Your task to perform on an android device: Show the shopping cart on walmart. Add "usb-a to usb-b" to the cart on walmart, then select checkout. Image 0: 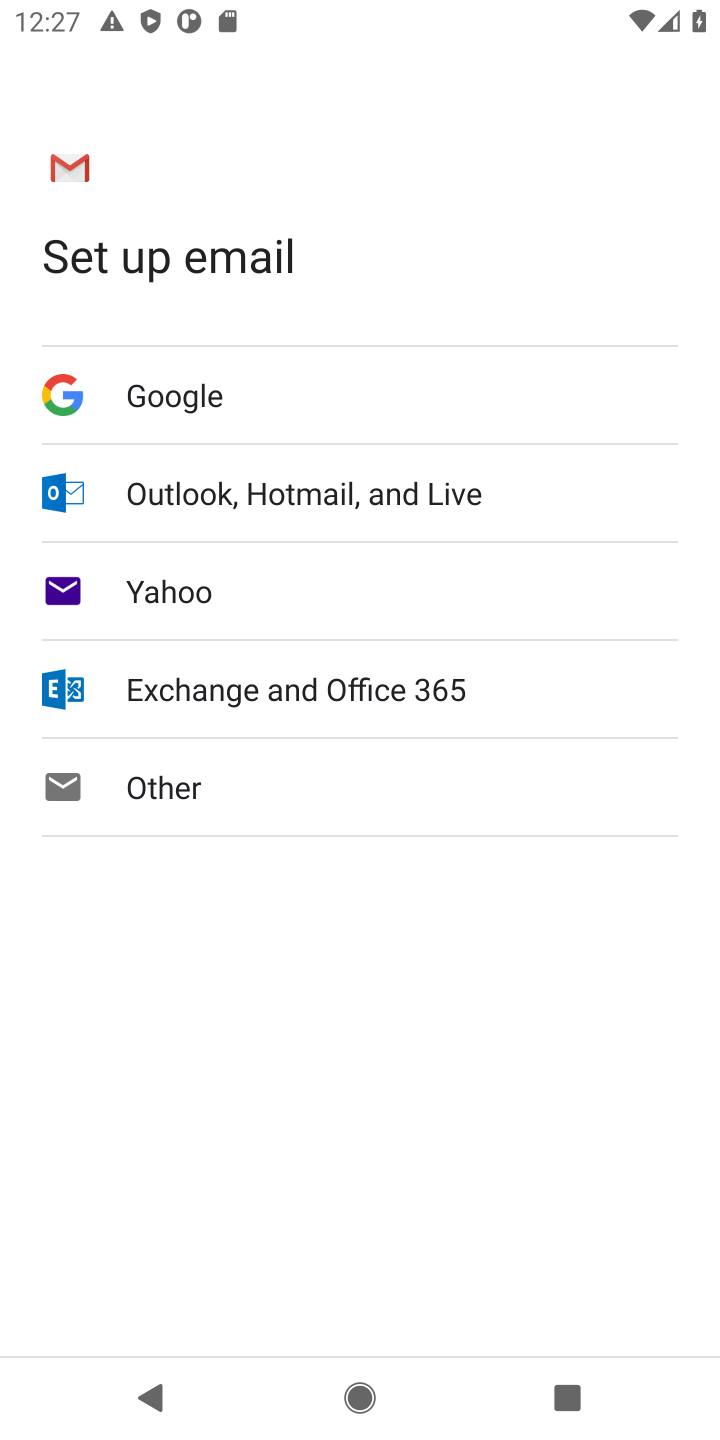
Step 0: press home button
Your task to perform on an android device: Show the shopping cart on walmart. Add "usb-a to usb-b" to the cart on walmart, then select checkout. Image 1: 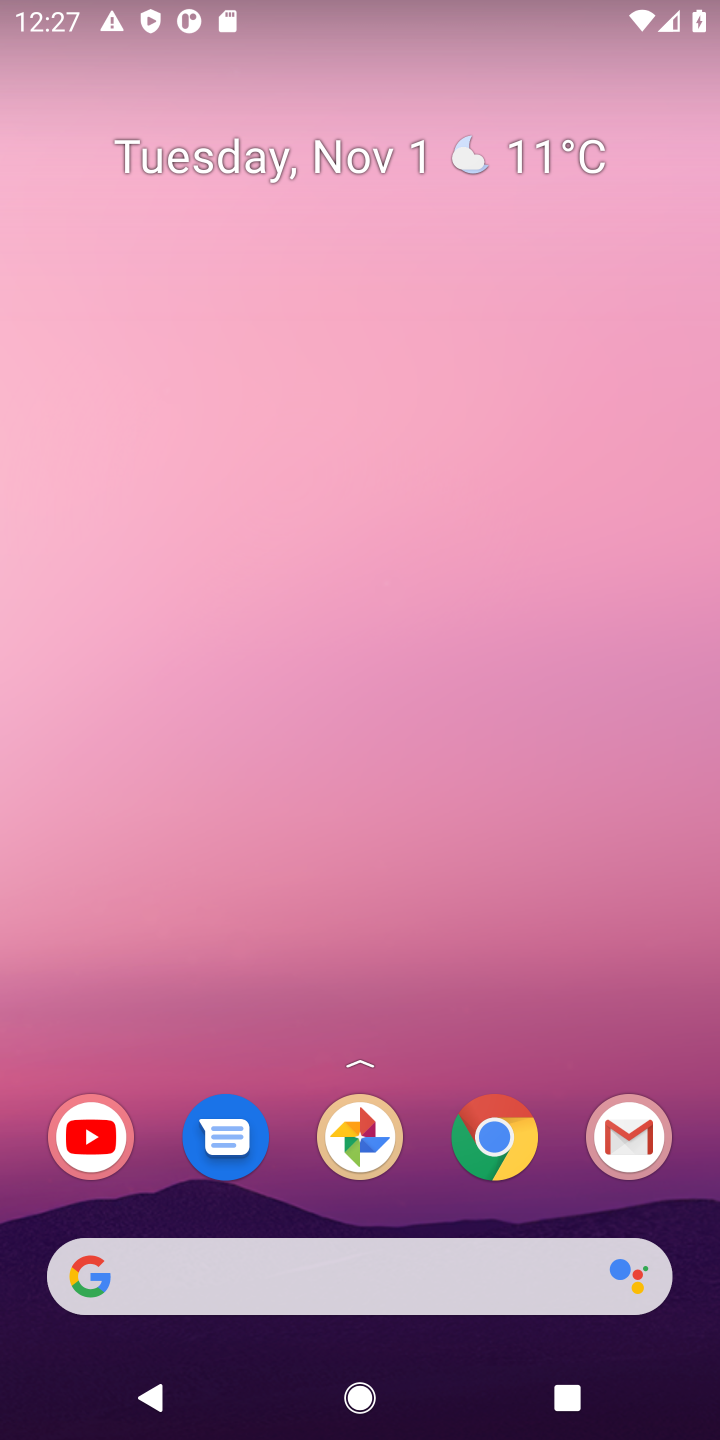
Step 1: click (504, 1136)
Your task to perform on an android device: Show the shopping cart on walmart. Add "usb-a to usb-b" to the cart on walmart, then select checkout. Image 2: 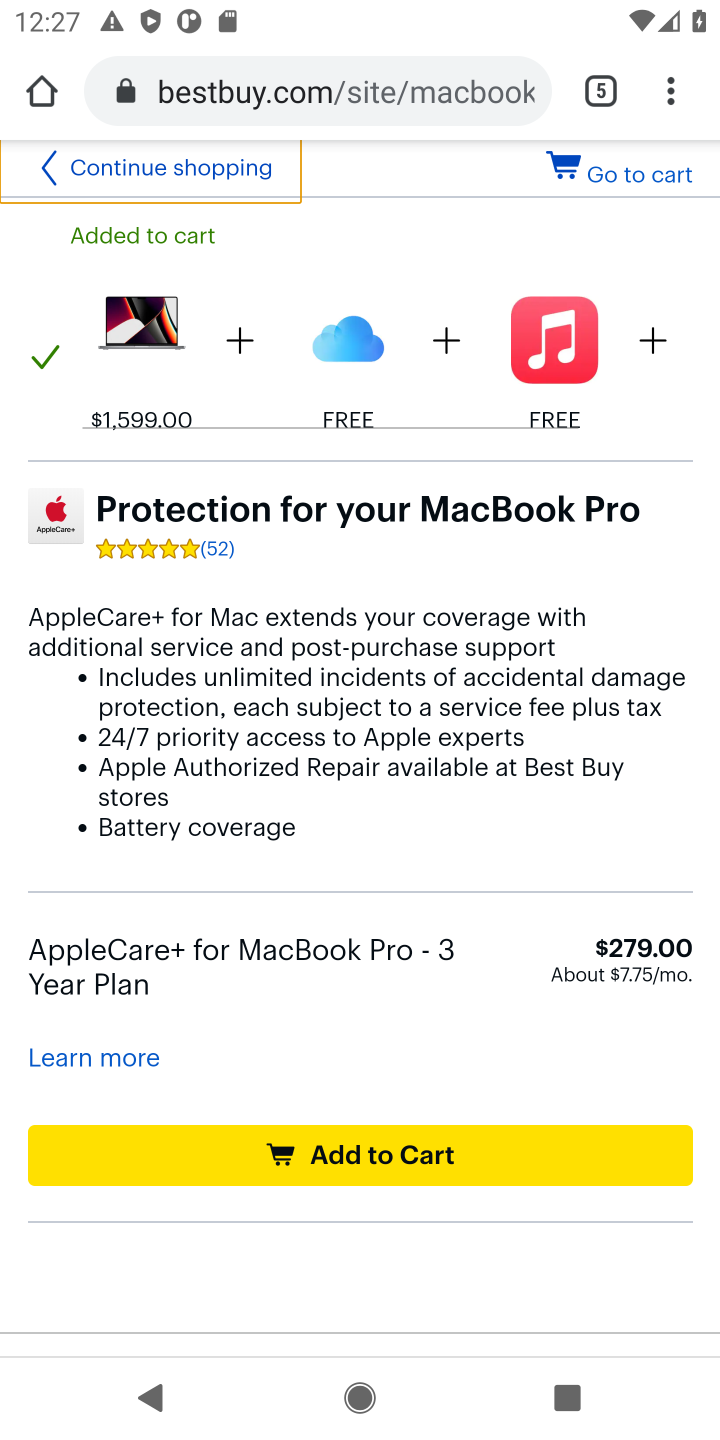
Step 2: click (605, 97)
Your task to perform on an android device: Show the shopping cart on walmart. Add "usb-a to usb-b" to the cart on walmart, then select checkout. Image 3: 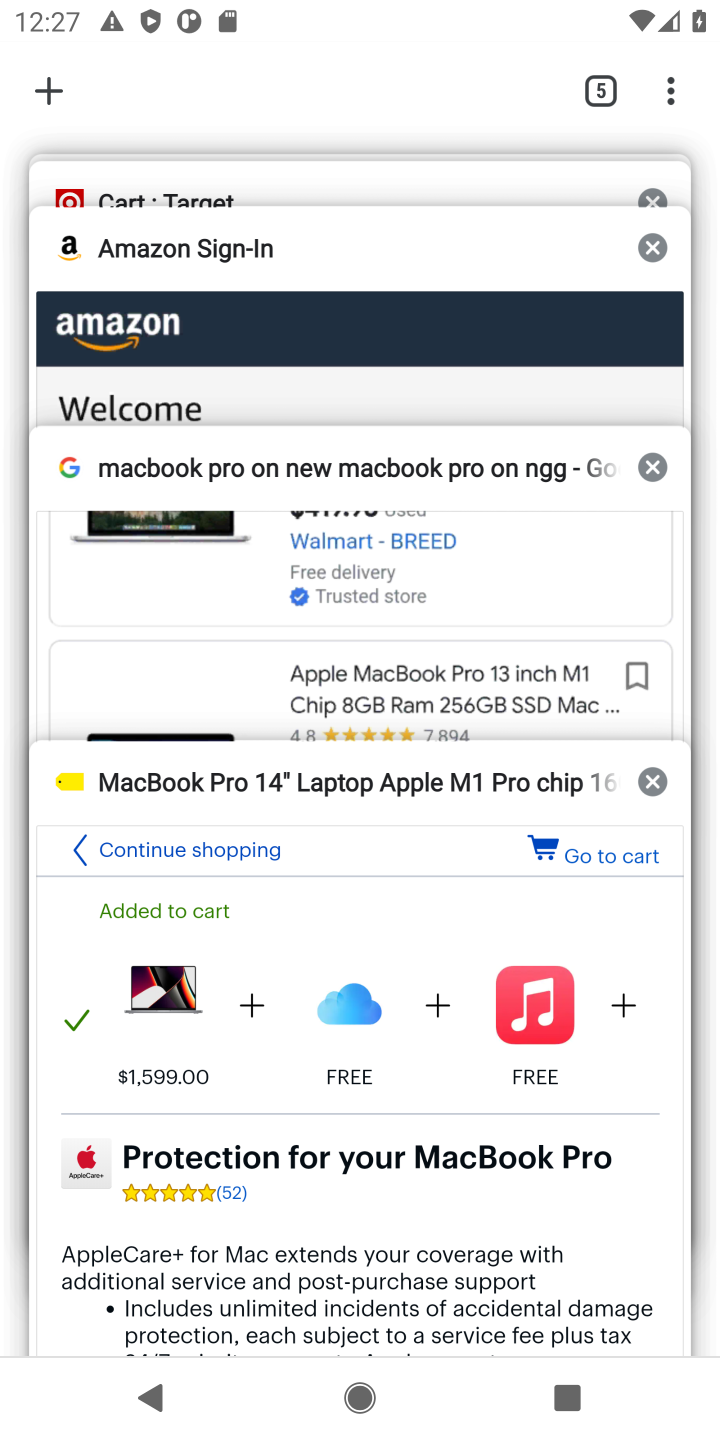
Step 3: drag from (413, 291) to (244, 951)
Your task to perform on an android device: Show the shopping cart on walmart. Add "usb-a to usb-b" to the cart on walmart, then select checkout. Image 4: 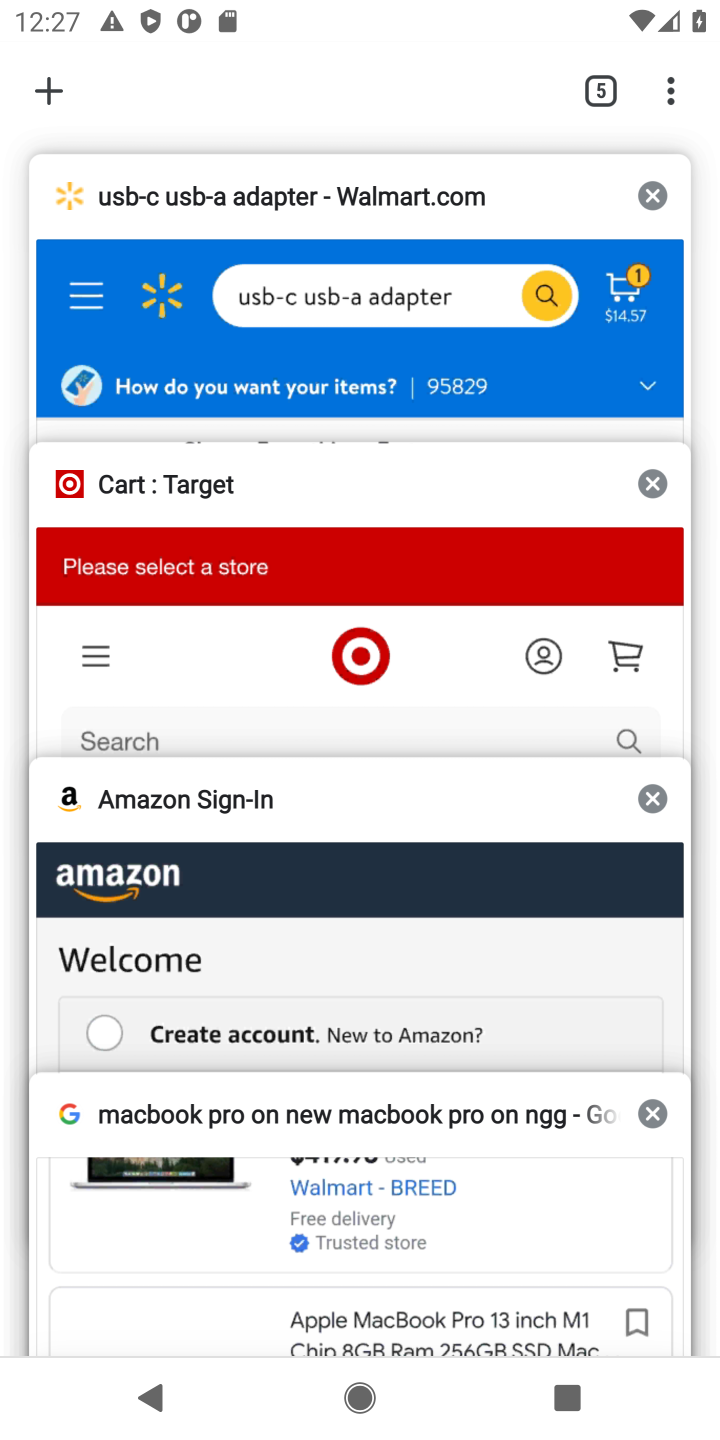
Step 4: click (321, 198)
Your task to perform on an android device: Show the shopping cart on walmart. Add "usb-a to usb-b" to the cart on walmart, then select checkout. Image 5: 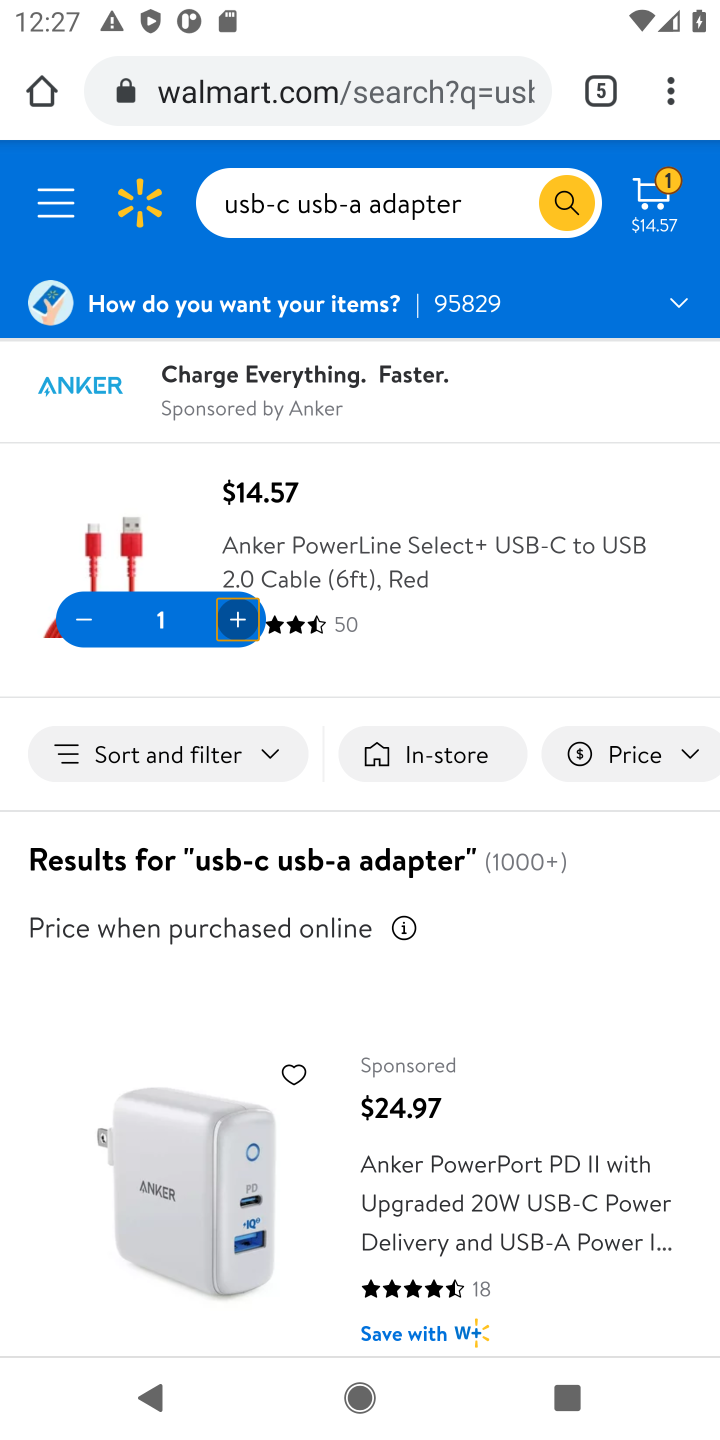
Step 5: click (564, 208)
Your task to perform on an android device: Show the shopping cart on walmart. Add "usb-a to usb-b" to the cart on walmart, then select checkout. Image 6: 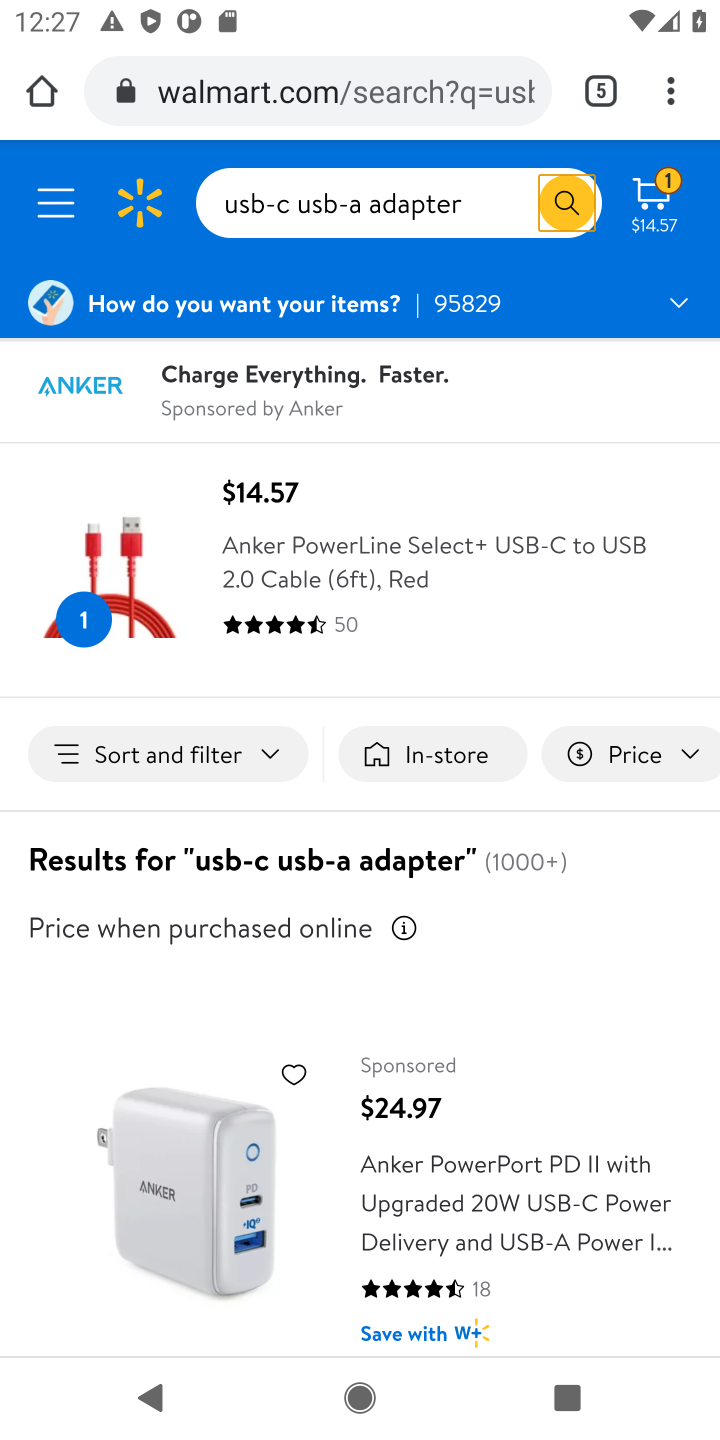
Step 6: click (91, 622)
Your task to perform on an android device: Show the shopping cart on walmart. Add "usb-a to usb-b" to the cart on walmart, then select checkout. Image 7: 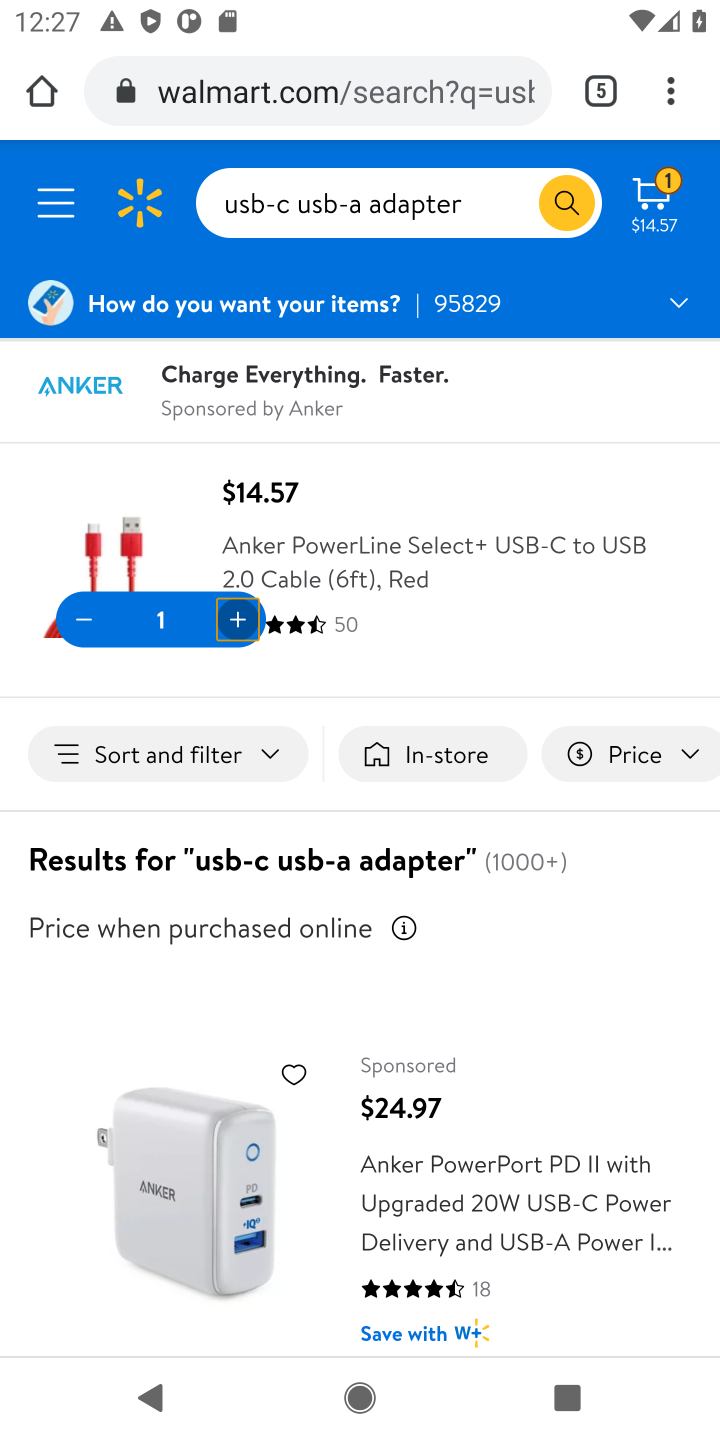
Step 7: click (231, 616)
Your task to perform on an android device: Show the shopping cart on walmart. Add "usb-a to usb-b" to the cart on walmart, then select checkout. Image 8: 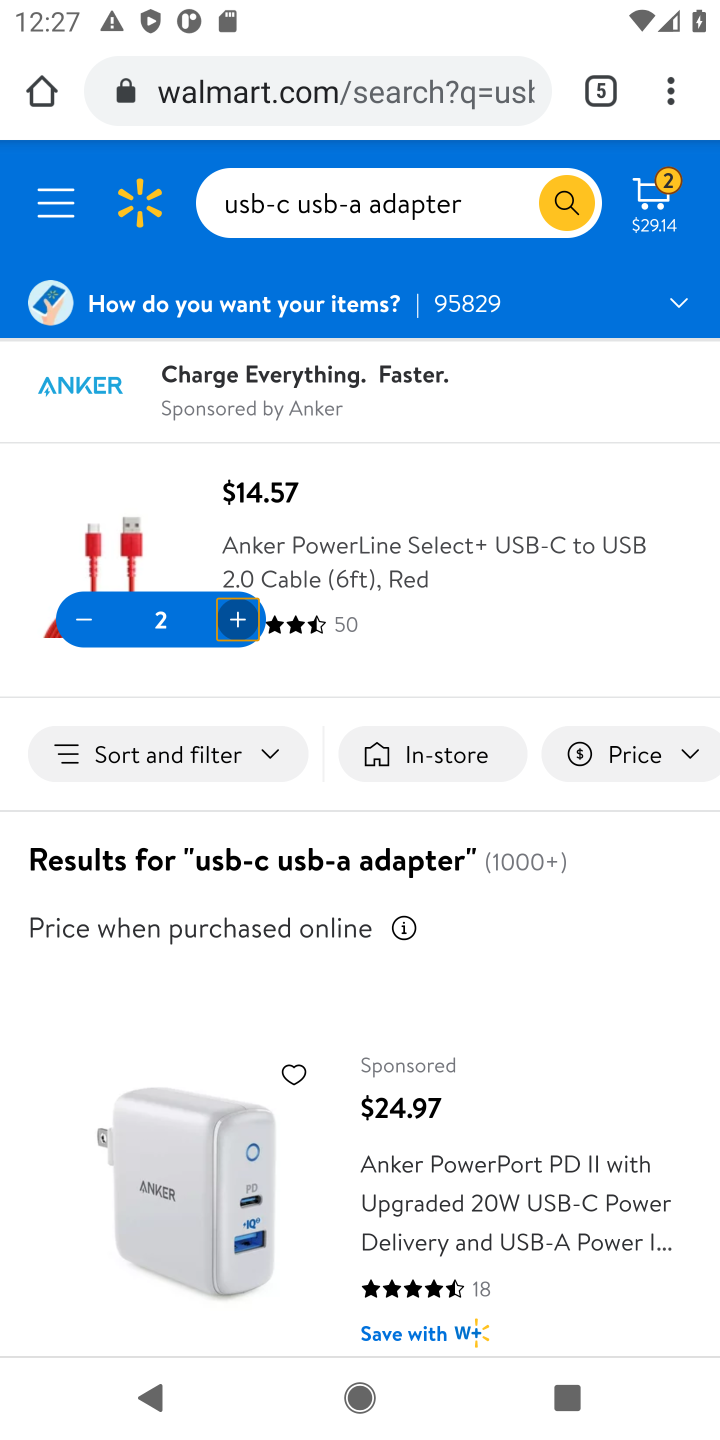
Step 8: task complete